Your task to perform on an android device: change your default location settings in chrome Image 0: 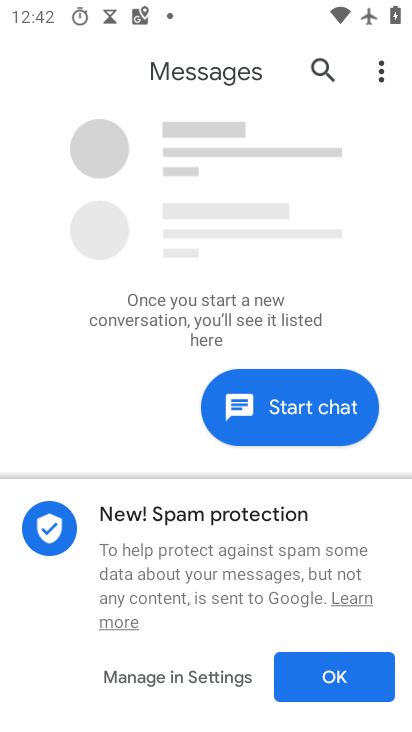
Step 0: press home button
Your task to perform on an android device: change your default location settings in chrome Image 1: 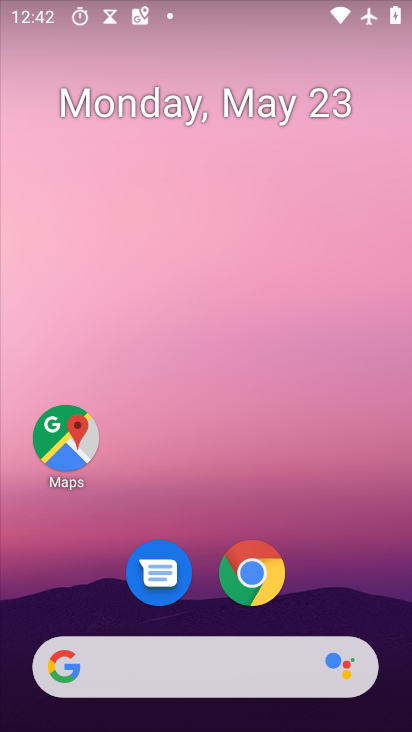
Step 1: click (245, 576)
Your task to perform on an android device: change your default location settings in chrome Image 2: 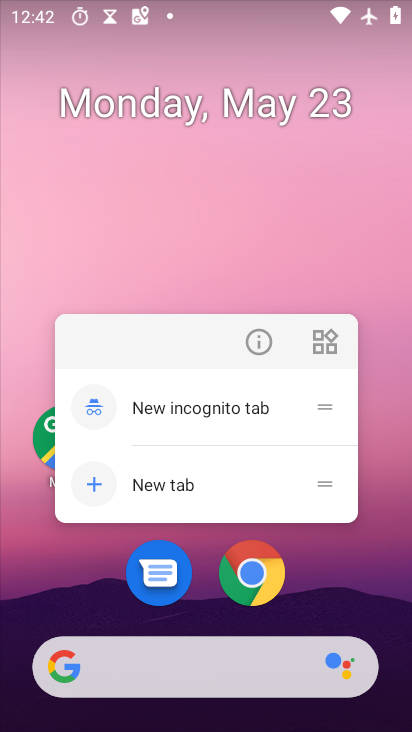
Step 2: click (245, 582)
Your task to perform on an android device: change your default location settings in chrome Image 3: 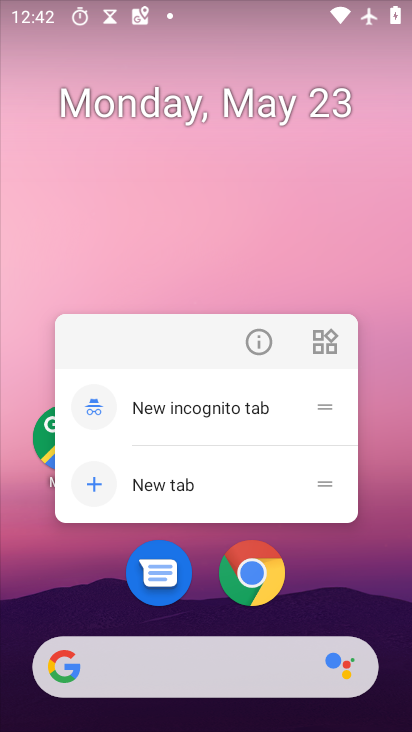
Step 3: click (249, 592)
Your task to perform on an android device: change your default location settings in chrome Image 4: 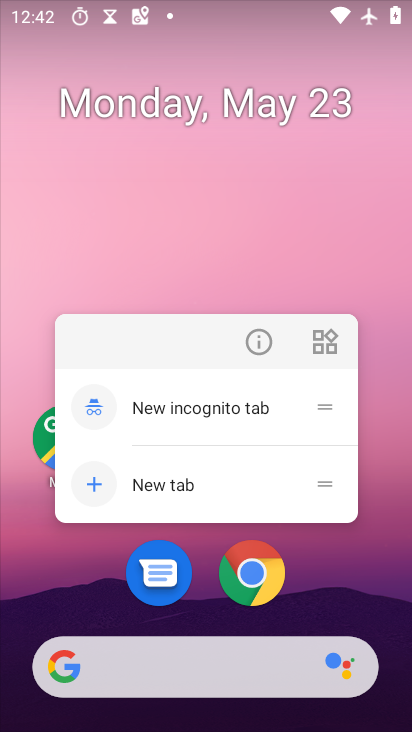
Step 4: click (252, 589)
Your task to perform on an android device: change your default location settings in chrome Image 5: 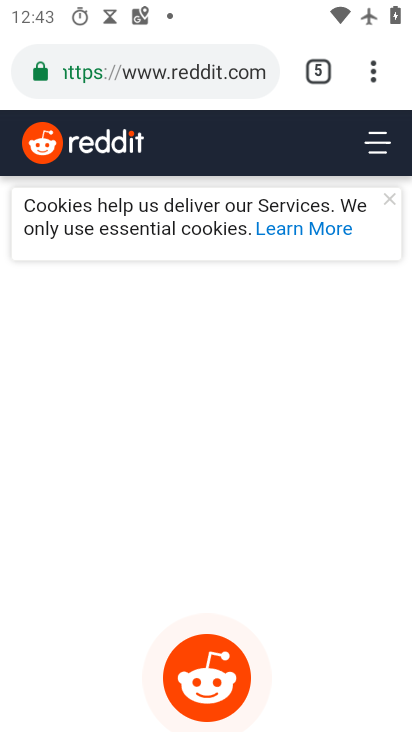
Step 5: drag from (374, 79) to (223, 579)
Your task to perform on an android device: change your default location settings in chrome Image 6: 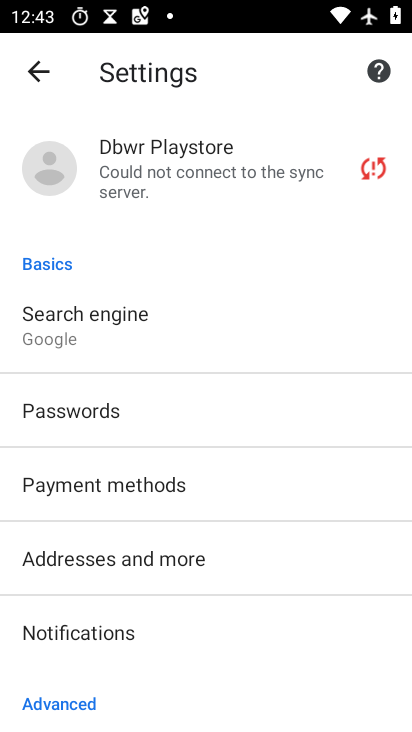
Step 6: drag from (167, 678) to (273, 196)
Your task to perform on an android device: change your default location settings in chrome Image 7: 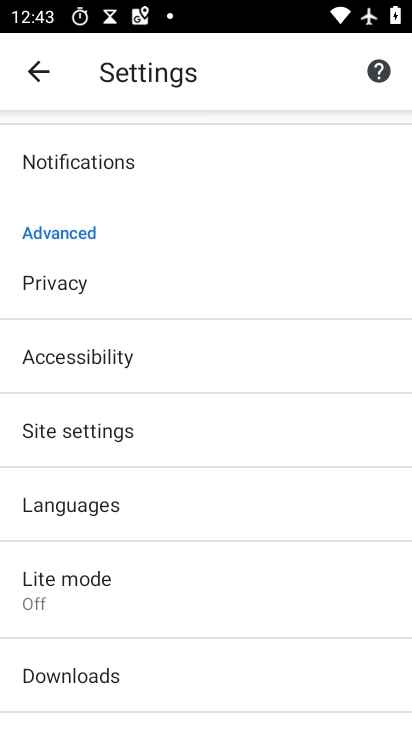
Step 7: click (114, 441)
Your task to perform on an android device: change your default location settings in chrome Image 8: 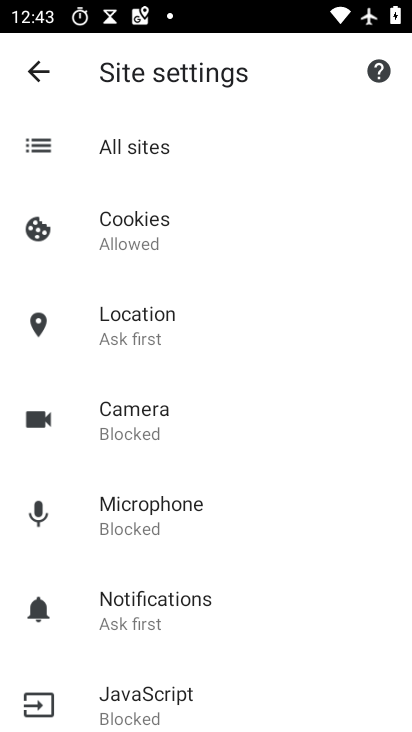
Step 8: drag from (233, 570) to (250, 309)
Your task to perform on an android device: change your default location settings in chrome Image 9: 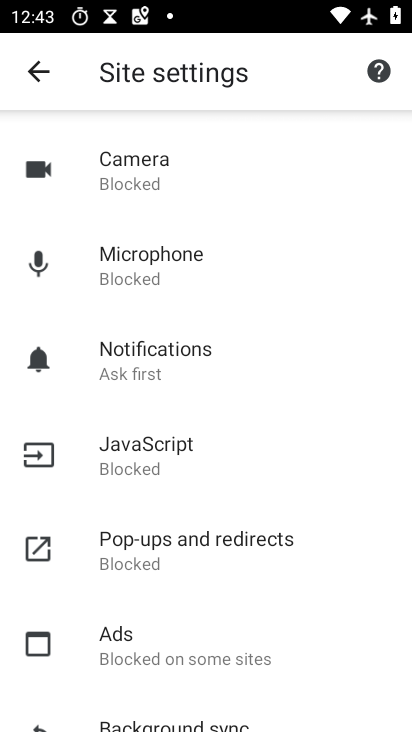
Step 9: drag from (239, 233) to (251, 642)
Your task to perform on an android device: change your default location settings in chrome Image 10: 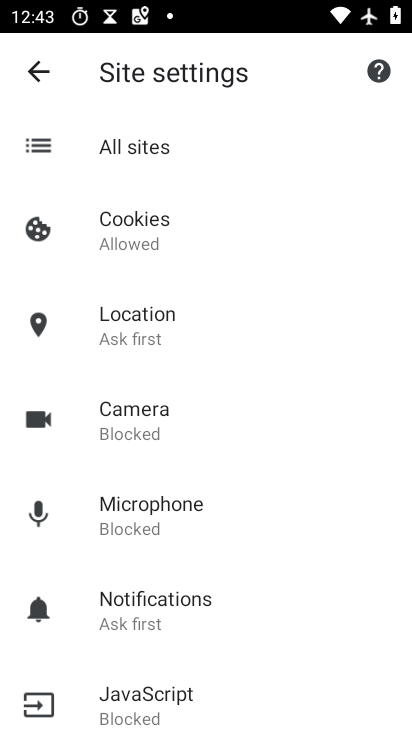
Step 10: click (152, 326)
Your task to perform on an android device: change your default location settings in chrome Image 11: 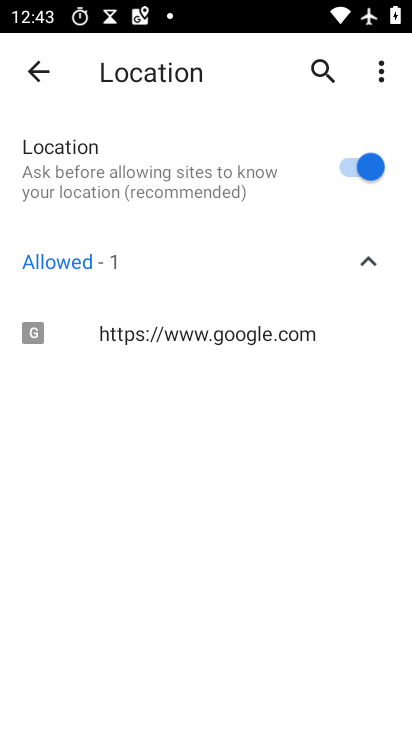
Step 11: click (343, 166)
Your task to perform on an android device: change your default location settings in chrome Image 12: 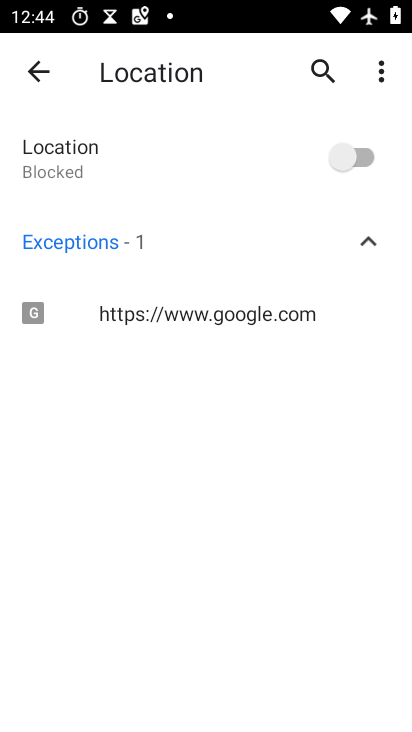
Step 12: task complete